Your task to perform on an android device: uninstall "eBay: The shopping marketplace" Image 0: 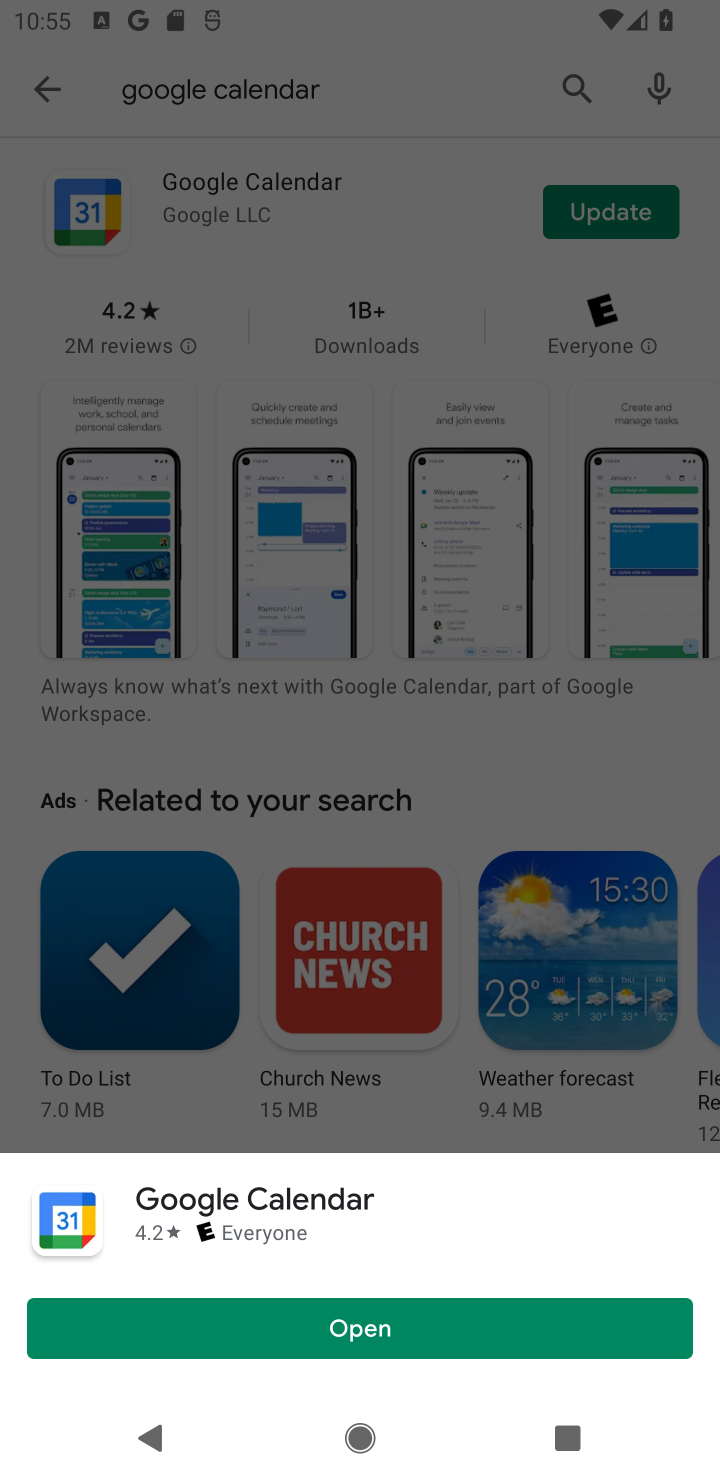
Step 0: click (444, 484)
Your task to perform on an android device: uninstall "eBay: The shopping marketplace" Image 1: 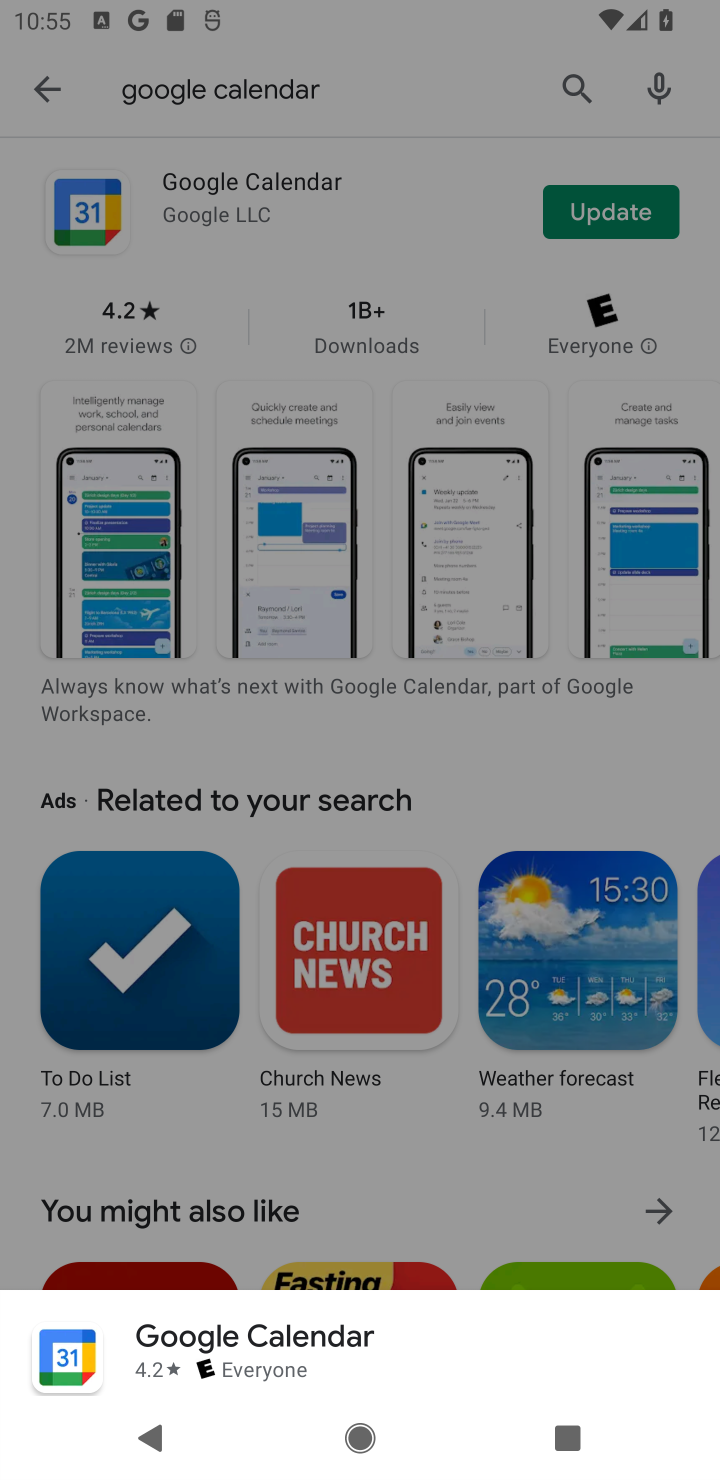
Step 1: click (567, 89)
Your task to perform on an android device: uninstall "eBay: The shopping marketplace" Image 2: 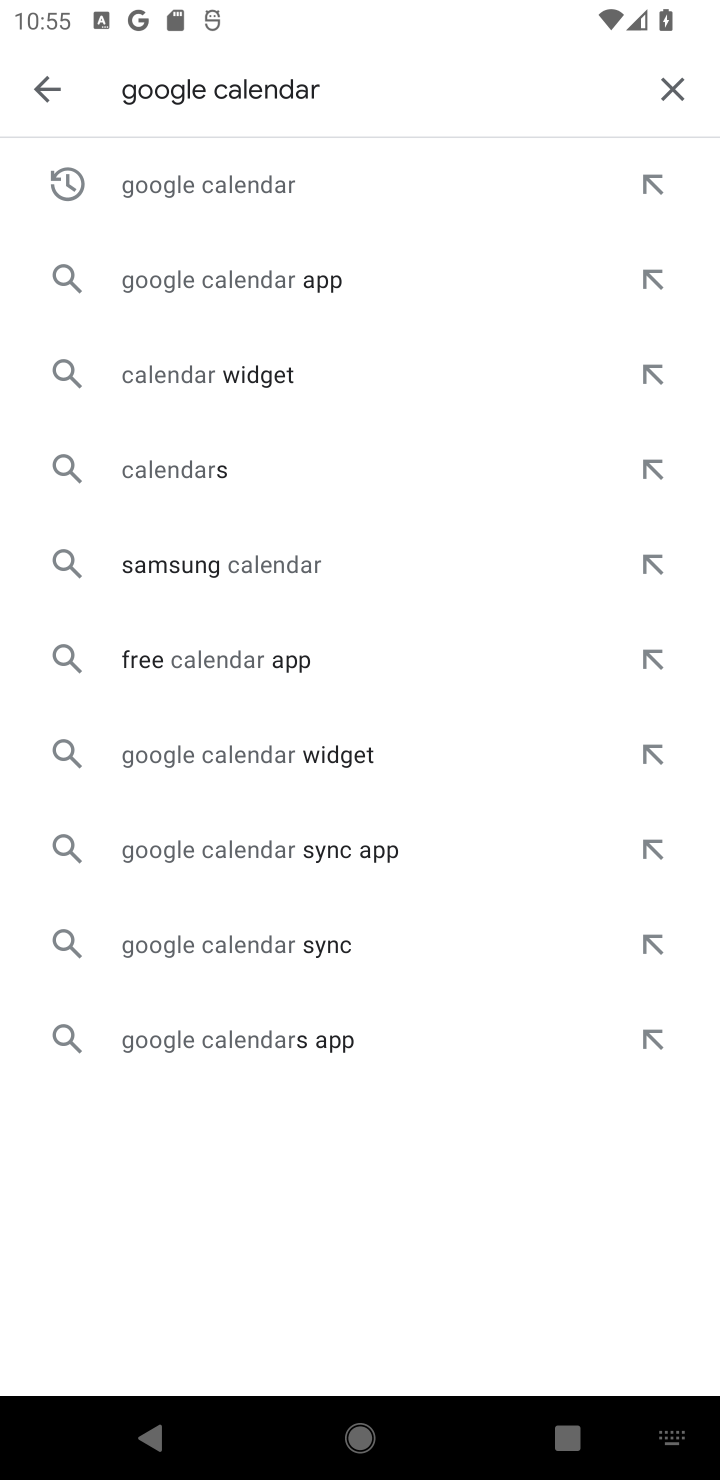
Step 2: click (656, 85)
Your task to perform on an android device: uninstall "eBay: The shopping marketplace" Image 3: 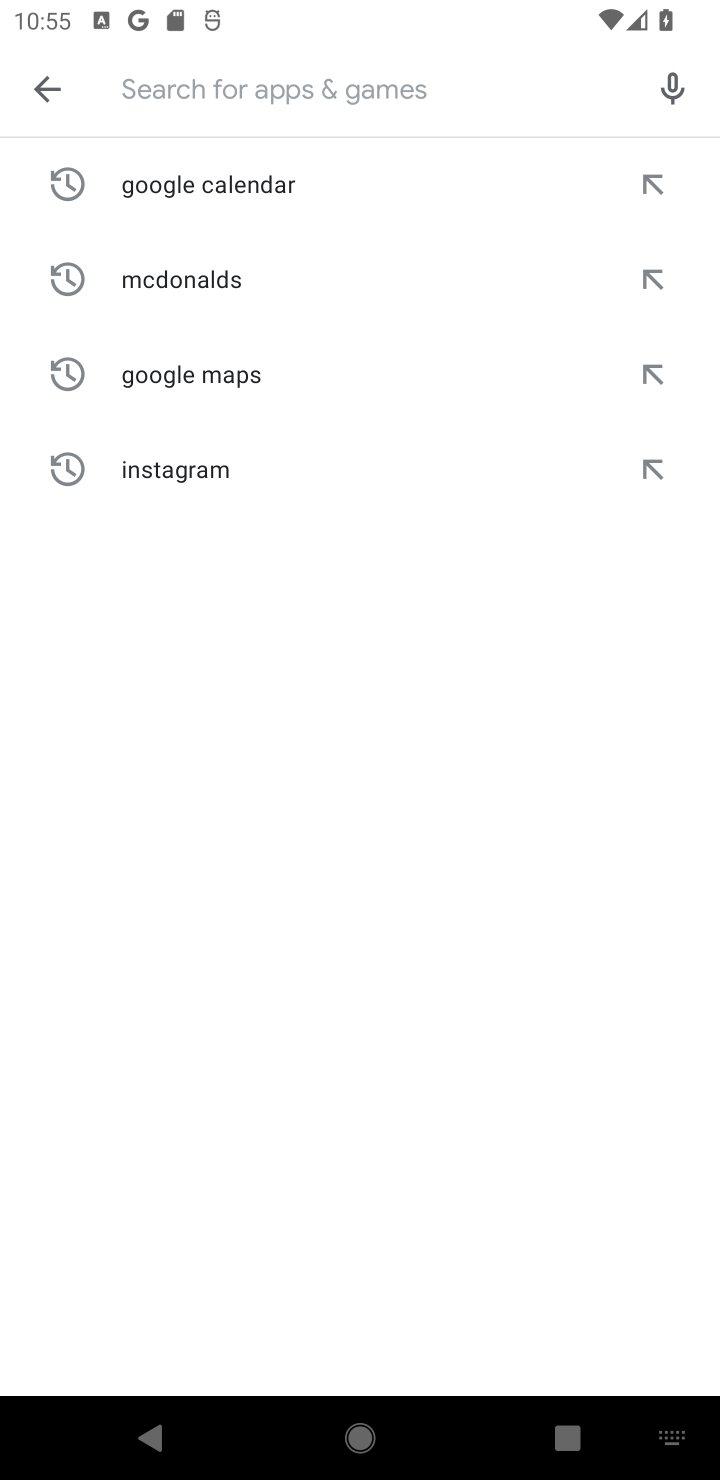
Step 3: click (377, 85)
Your task to perform on an android device: uninstall "eBay: The shopping marketplace" Image 4: 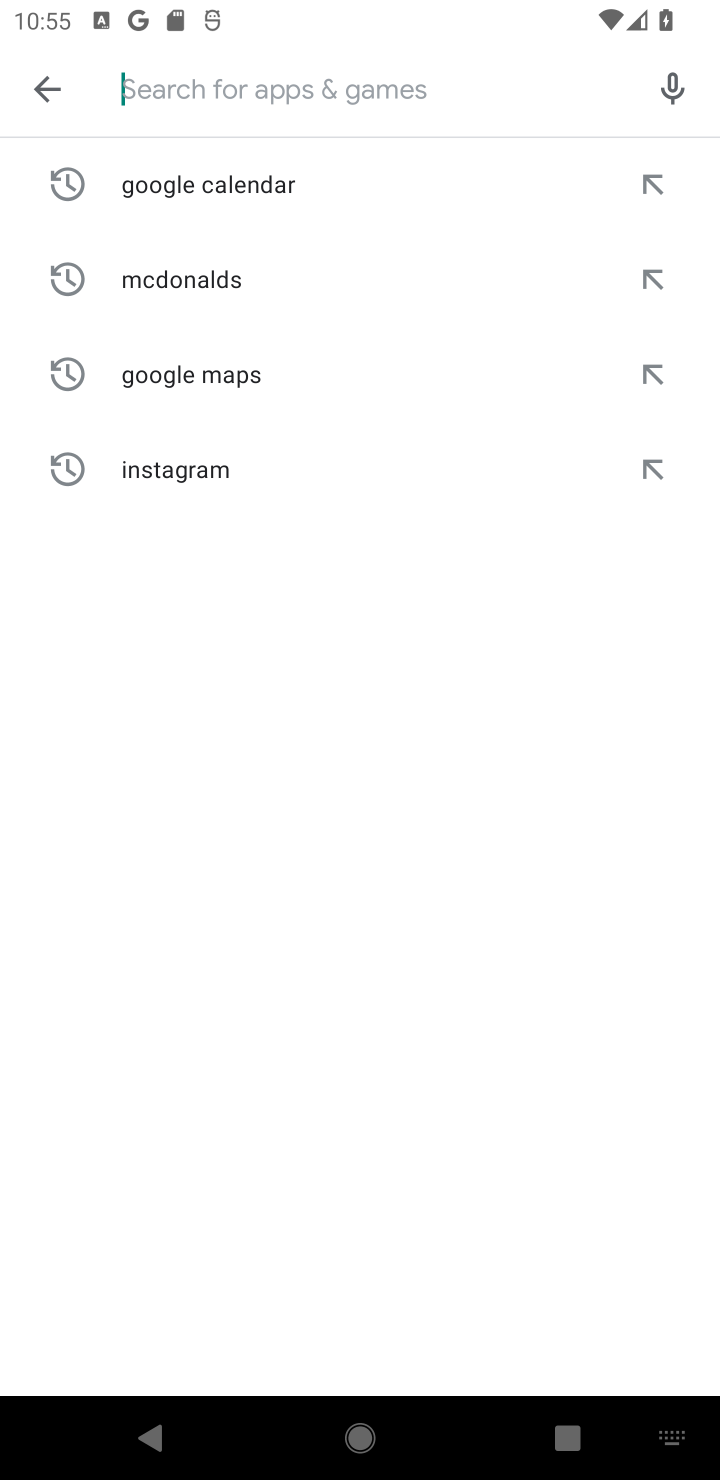
Step 4: type "ebay"
Your task to perform on an android device: uninstall "eBay: The shopping marketplace" Image 5: 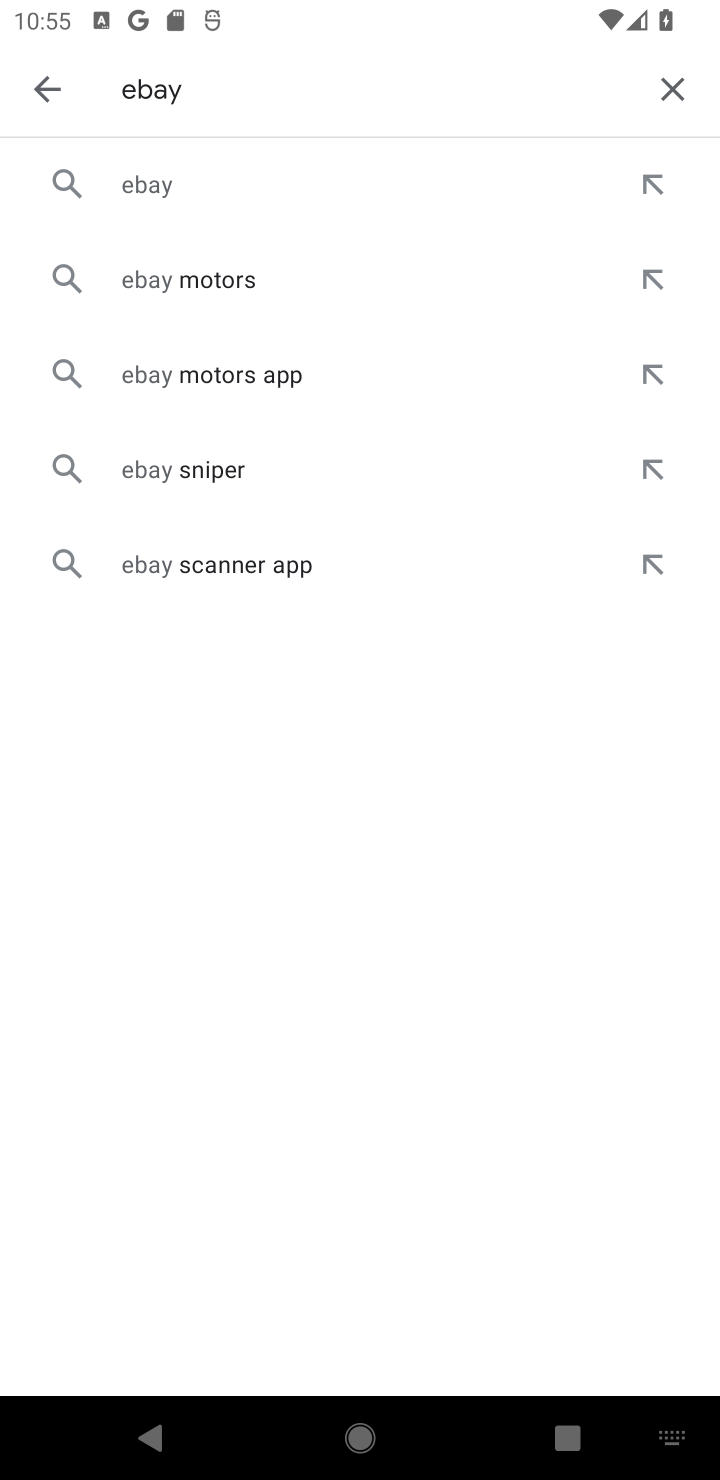
Step 5: click (228, 176)
Your task to perform on an android device: uninstall "eBay: The shopping marketplace" Image 6: 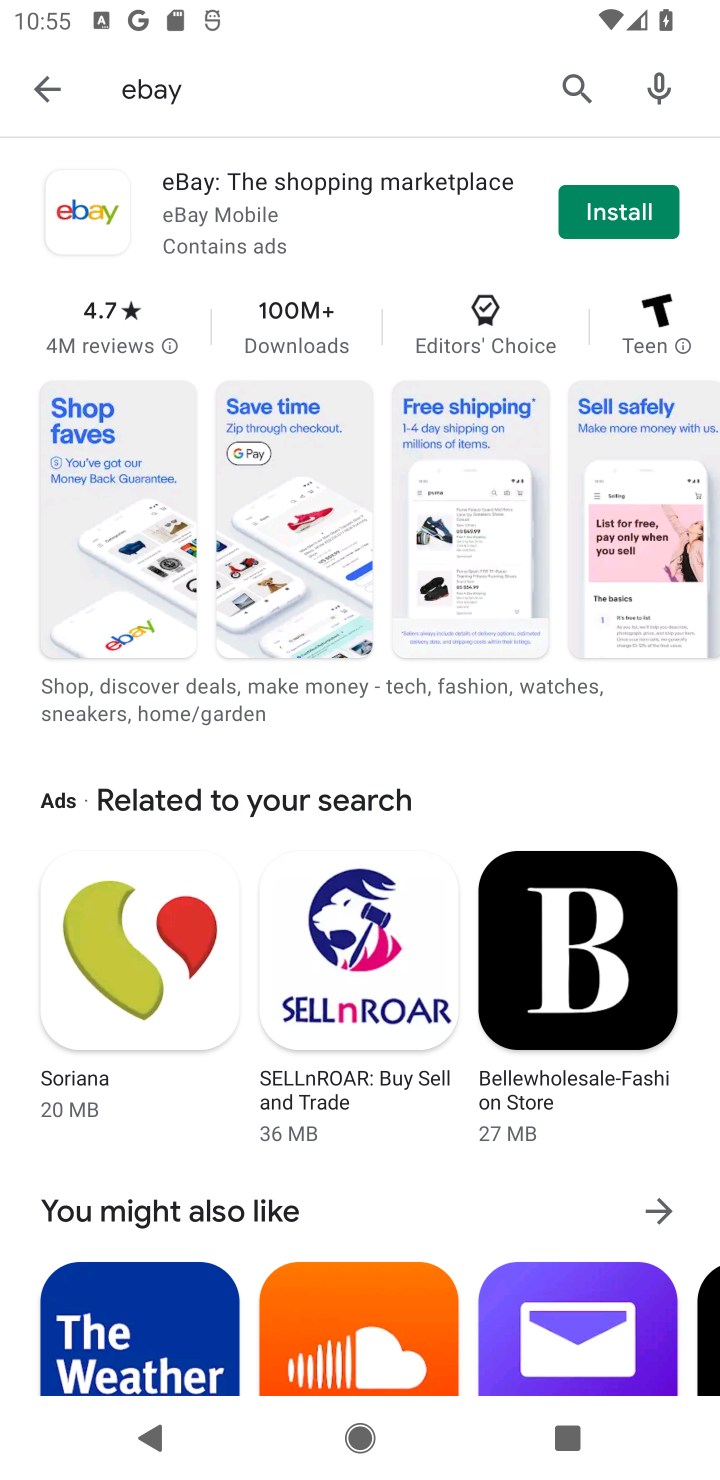
Step 6: click (337, 199)
Your task to perform on an android device: uninstall "eBay: The shopping marketplace" Image 7: 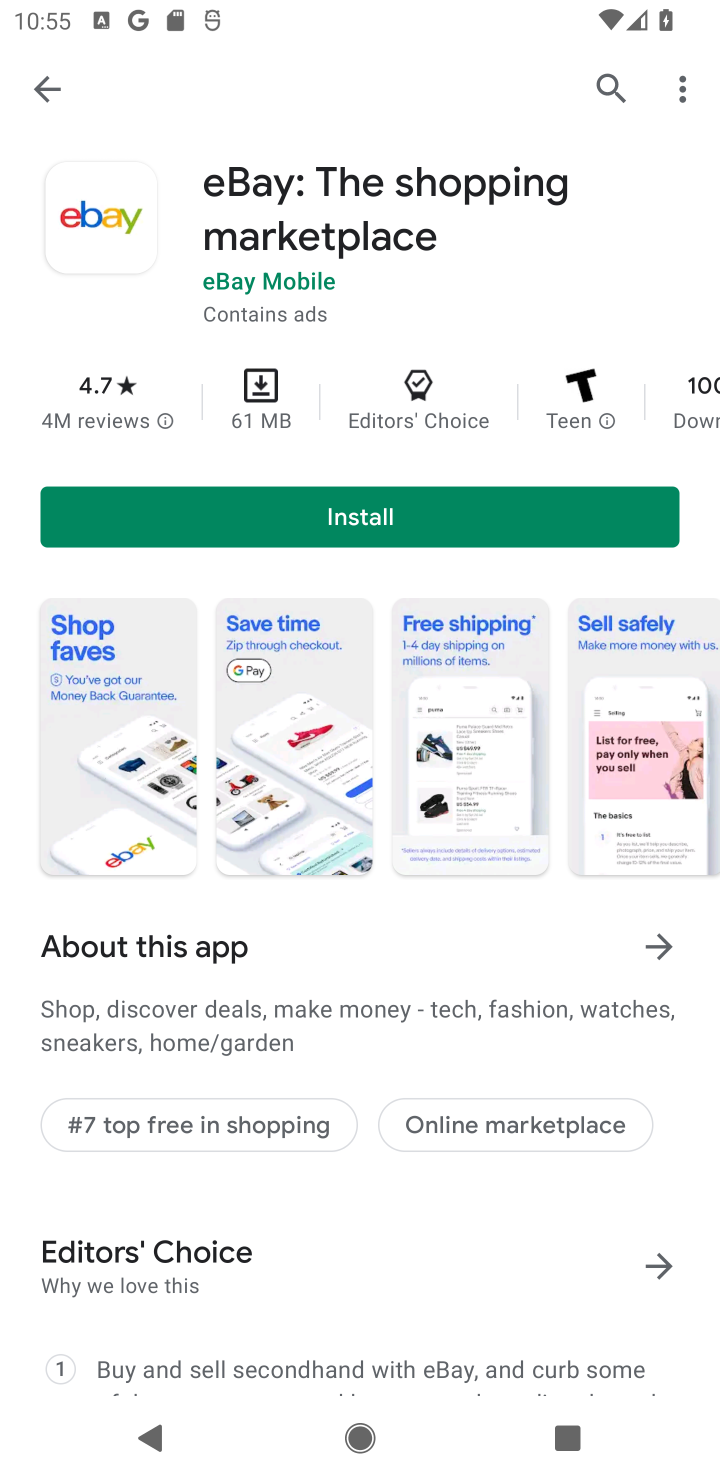
Step 7: task complete